Your task to perform on an android device: toggle data saver in the chrome app Image 0: 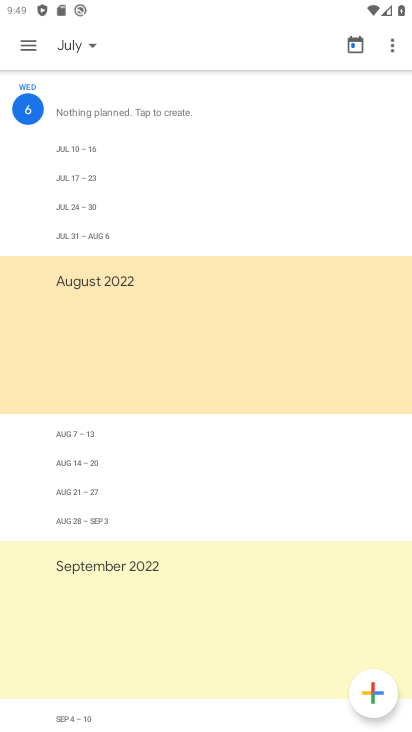
Step 0: press home button
Your task to perform on an android device: toggle data saver in the chrome app Image 1: 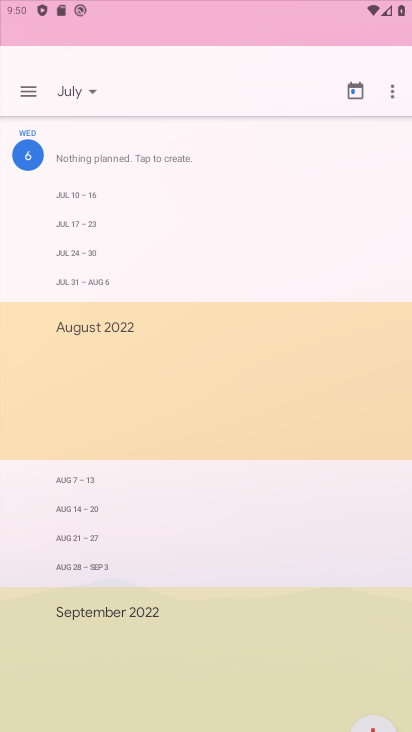
Step 1: press home button
Your task to perform on an android device: toggle data saver in the chrome app Image 2: 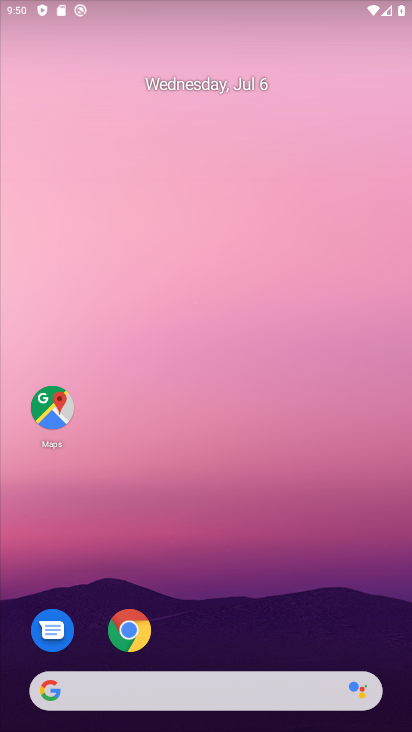
Step 2: drag from (316, 605) to (288, 86)
Your task to perform on an android device: toggle data saver in the chrome app Image 3: 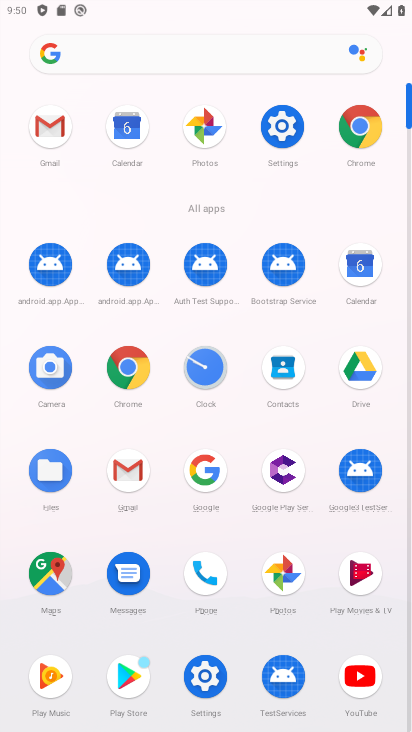
Step 3: click (364, 154)
Your task to perform on an android device: toggle data saver in the chrome app Image 4: 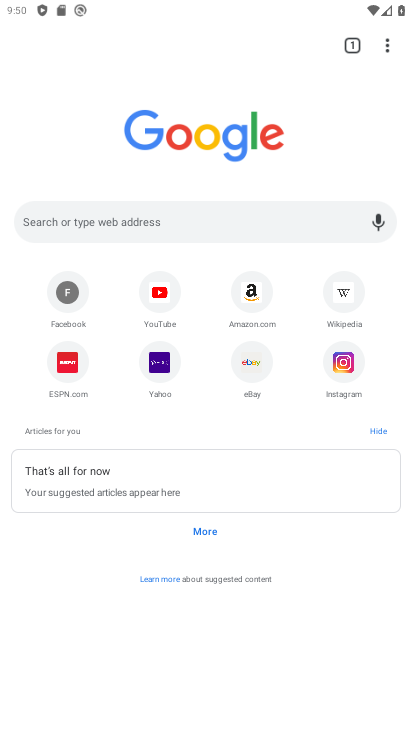
Step 4: drag from (395, 39) to (206, 389)
Your task to perform on an android device: toggle data saver in the chrome app Image 5: 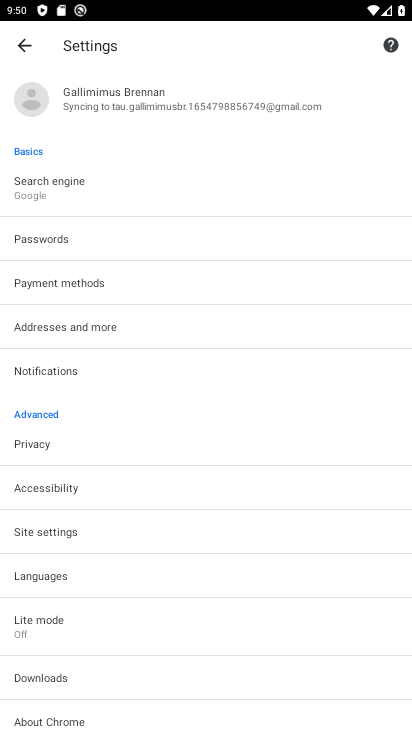
Step 5: drag from (163, 588) to (151, 173)
Your task to perform on an android device: toggle data saver in the chrome app Image 6: 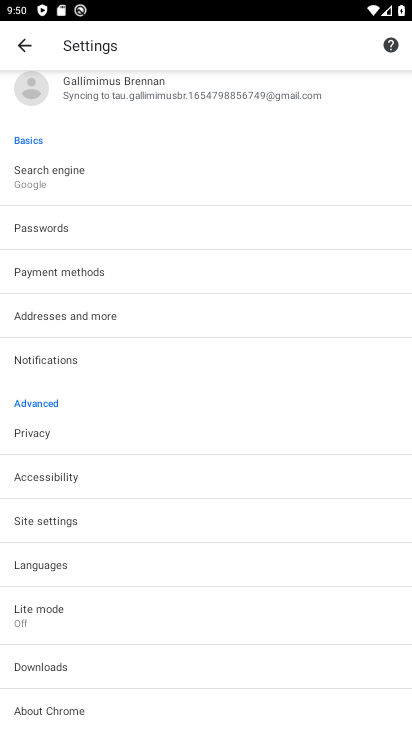
Step 6: click (32, 631)
Your task to perform on an android device: toggle data saver in the chrome app Image 7: 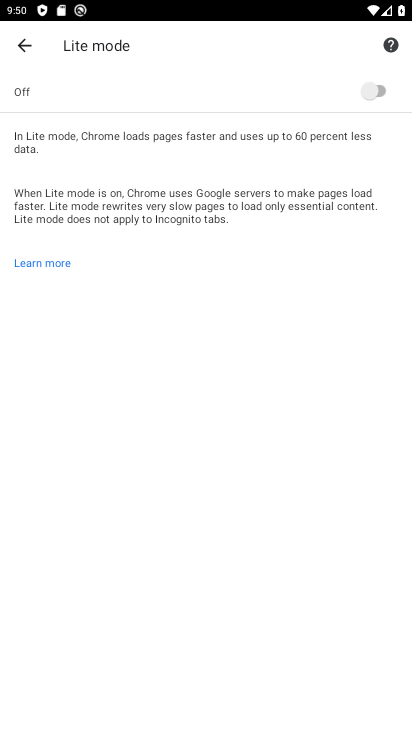
Step 7: click (275, 95)
Your task to perform on an android device: toggle data saver in the chrome app Image 8: 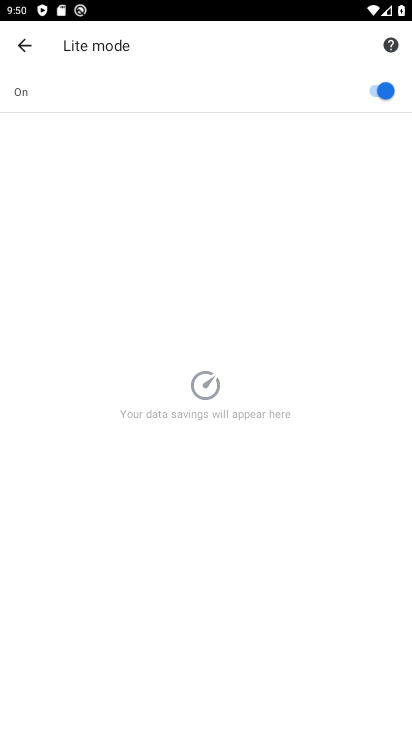
Step 8: task complete